Your task to perform on an android device: turn on the 12-hour format for clock Image 0: 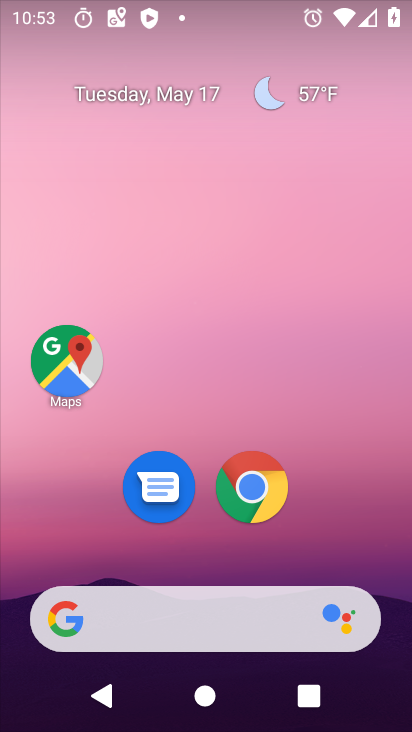
Step 0: drag from (221, 728) to (195, 178)
Your task to perform on an android device: turn on the 12-hour format for clock Image 1: 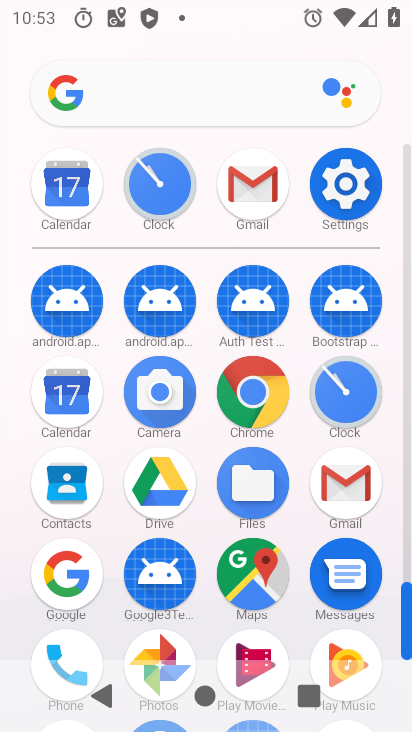
Step 1: click (352, 393)
Your task to perform on an android device: turn on the 12-hour format for clock Image 2: 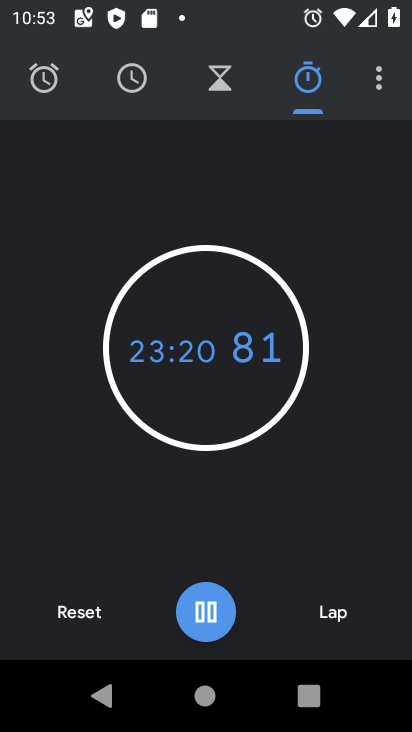
Step 2: click (378, 91)
Your task to perform on an android device: turn on the 12-hour format for clock Image 3: 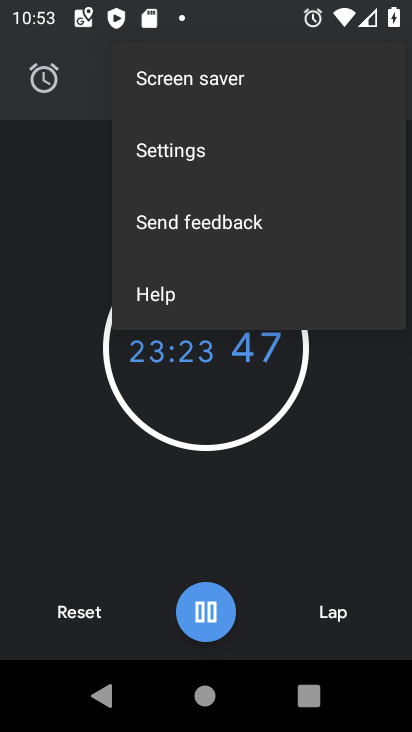
Step 3: click (157, 148)
Your task to perform on an android device: turn on the 12-hour format for clock Image 4: 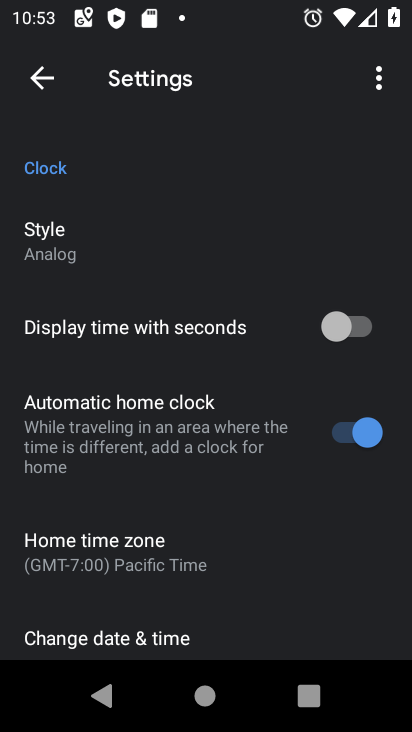
Step 4: drag from (134, 618) to (133, 368)
Your task to perform on an android device: turn on the 12-hour format for clock Image 5: 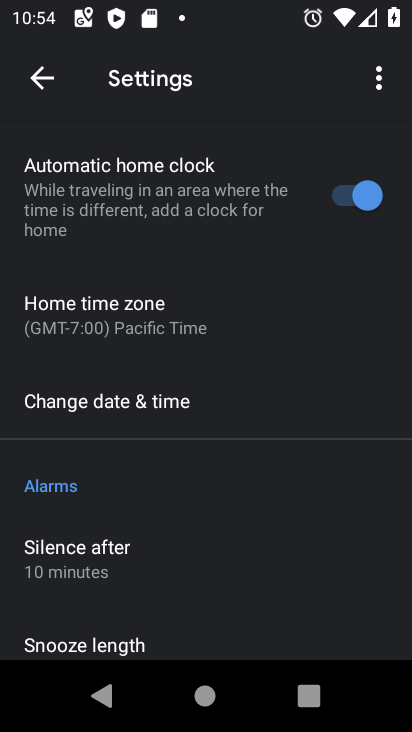
Step 5: click (111, 404)
Your task to perform on an android device: turn on the 12-hour format for clock Image 6: 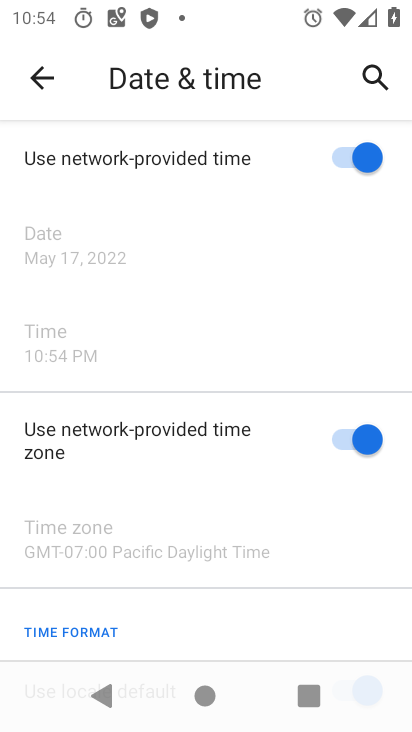
Step 6: task complete